Your task to perform on an android device: turn smart compose on in the gmail app Image 0: 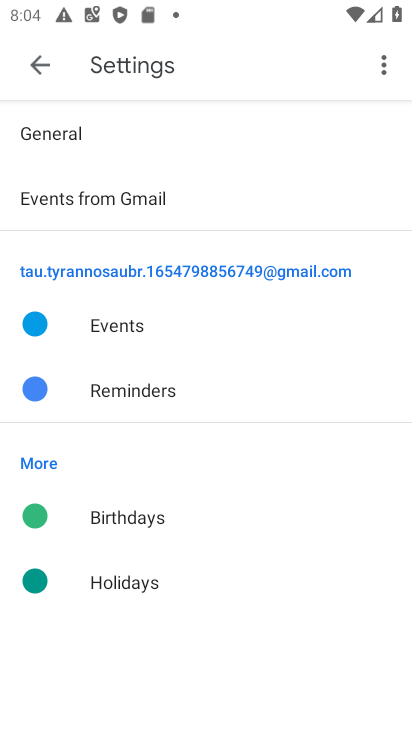
Step 0: press home button
Your task to perform on an android device: turn smart compose on in the gmail app Image 1: 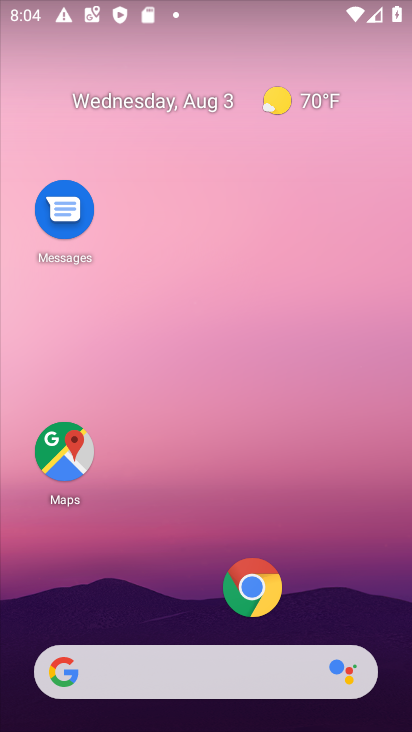
Step 1: drag from (130, 621) to (124, 300)
Your task to perform on an android device: turn smart compose on in the gmail app Image 2: 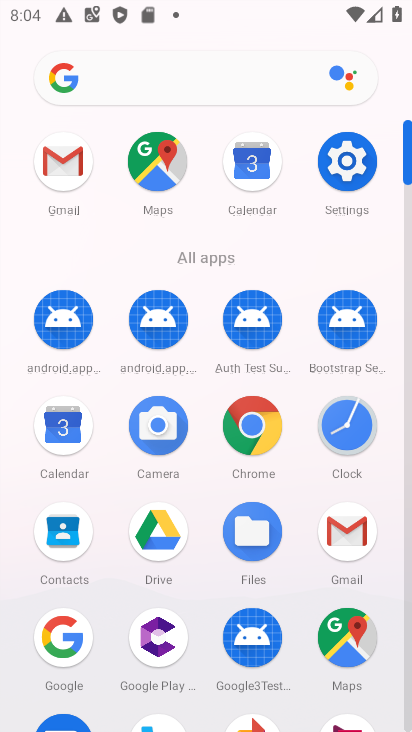
Step 2: click (343, 529)
Your task to perform on an android device: turn smart compose on in the gmail app Image 3: 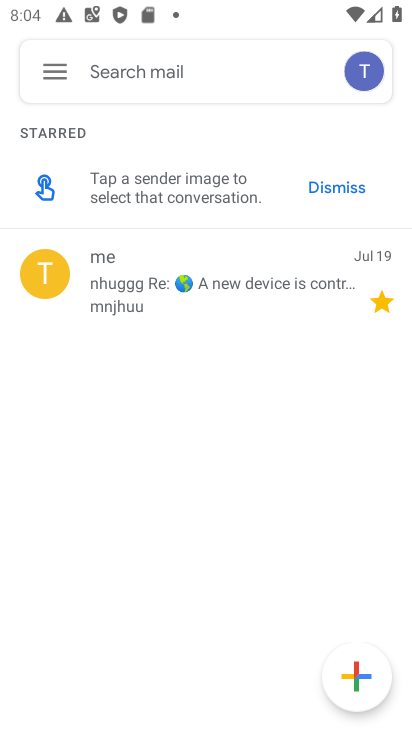
Step 3: click (55, 71)
Your task to perform on an android device: turn smart compose on in the gmail app Image 4: 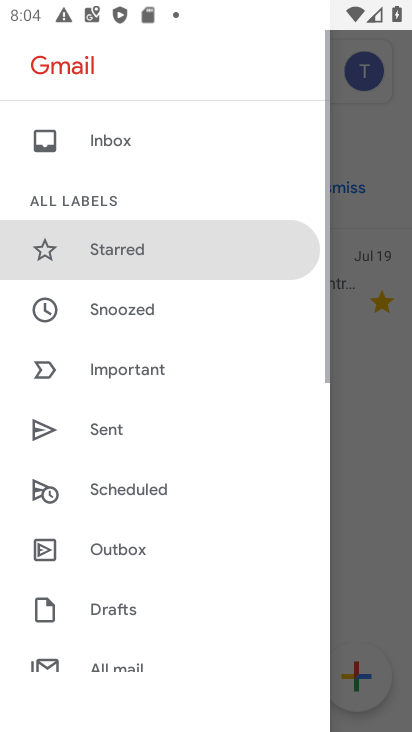
Step 4: drag from (209, 653) to (207, 260)
Your task to perform on an android device: turn smart compose on in the gmail app Image 5: 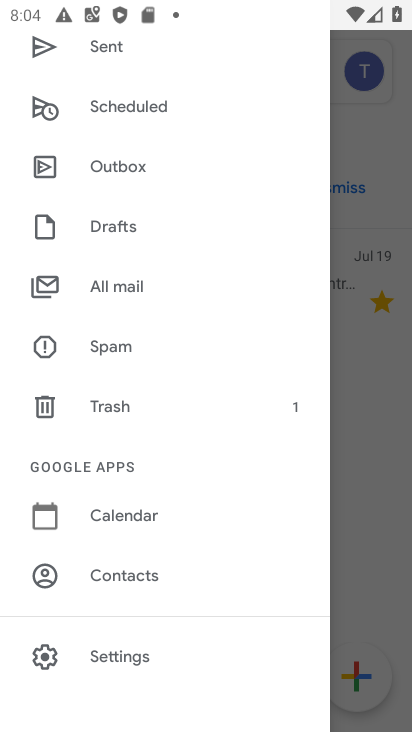
Step 5: click (189, 648)
Your task to perform on an android device: turn smart compose on in the gmail app Image 6: 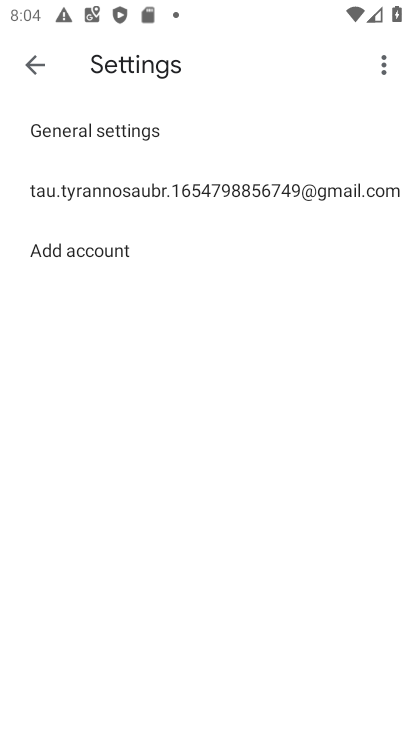
Step 6: click (181, 194)
Your task to perform on an android device: turn smart compose on in the gmail app Image 7: 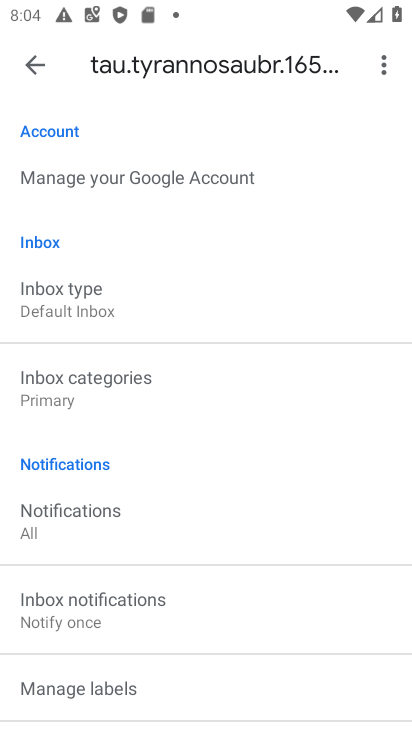
Step 7: task complete